Your task to perform on an android device: change alarm snooze length Image 0: 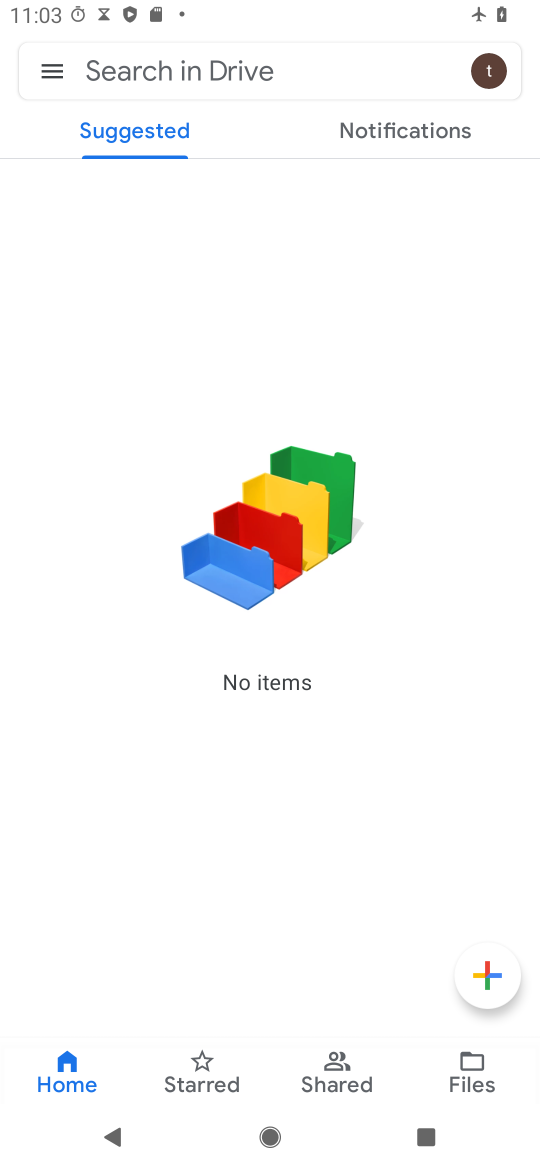
Step 0: press home button
Your task to perform on an android device: change alarm snooze length Image 1: 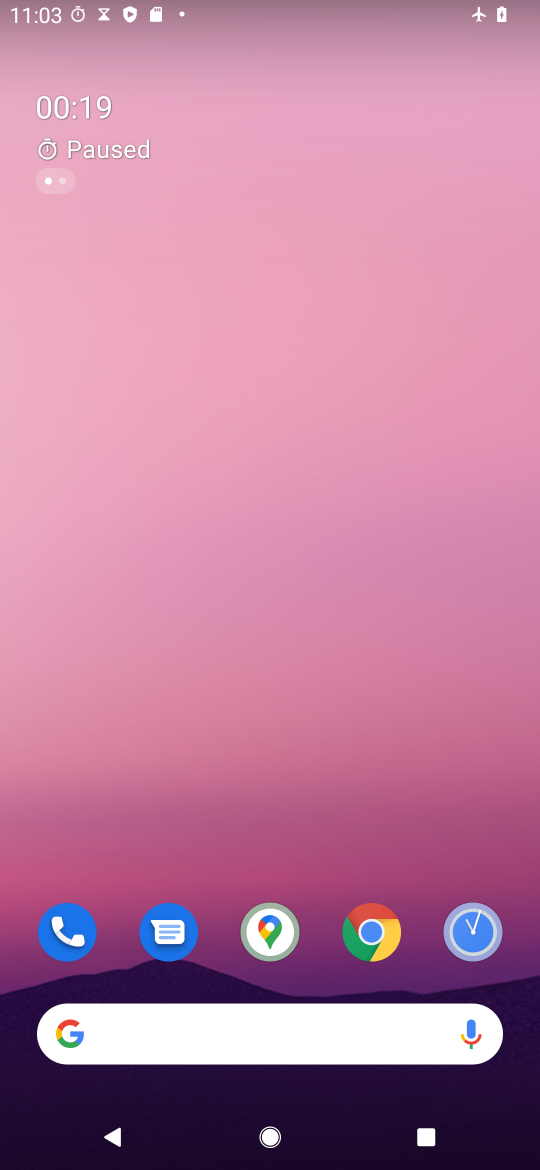
Step 1: drag from (211, 1055) to (396, 204)
Your task to perform on an android device: change alarm snooze length Image 2: 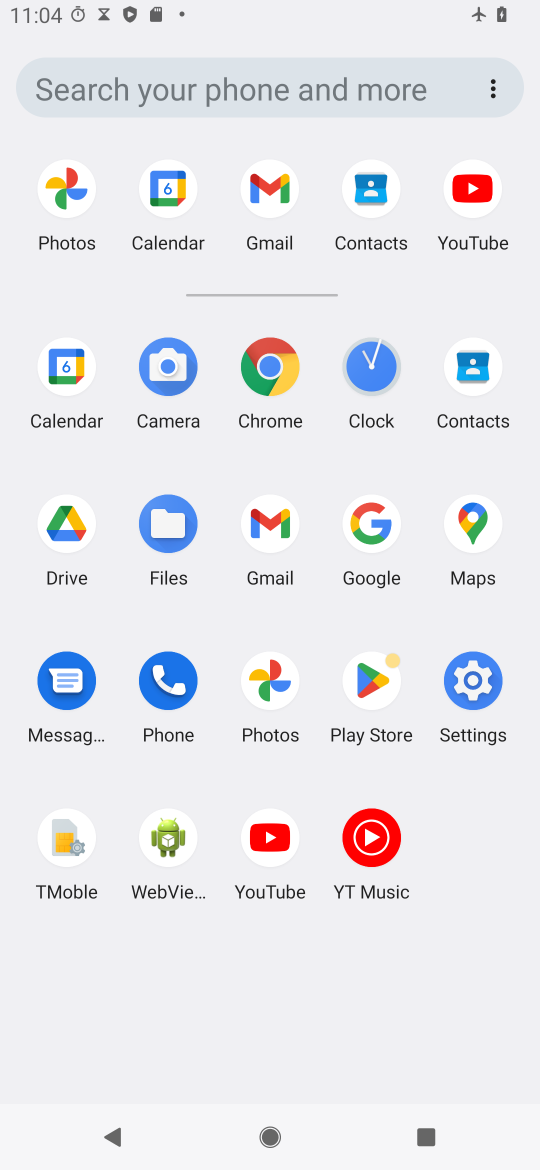
Step 2: click (369, 372)
Your task to perform on an android device: change alarm snooze length Image 3: 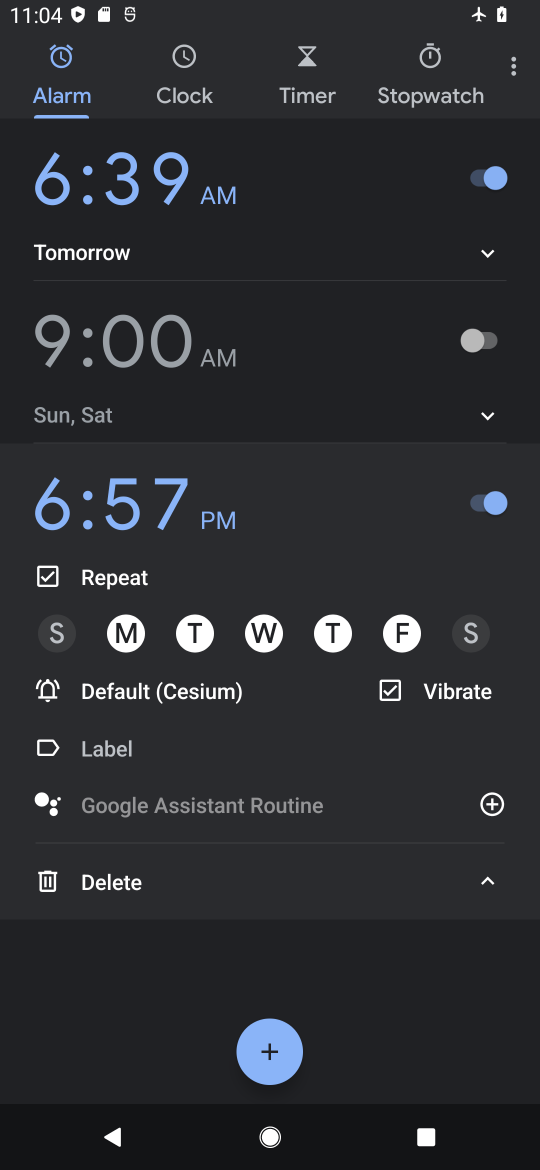
Step 3: click (513, 68)
Your task to perform on an android device: change alarm snooze length Image 4: 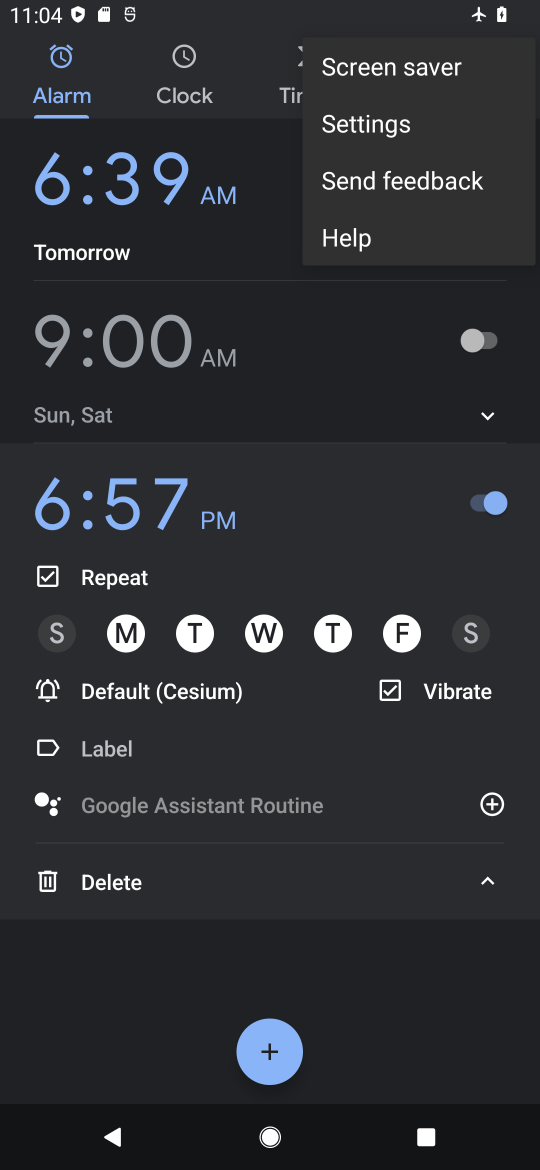
Step 4: click (410, 121)
Your task to perform on an android device: change alarm snooze length Image 5: 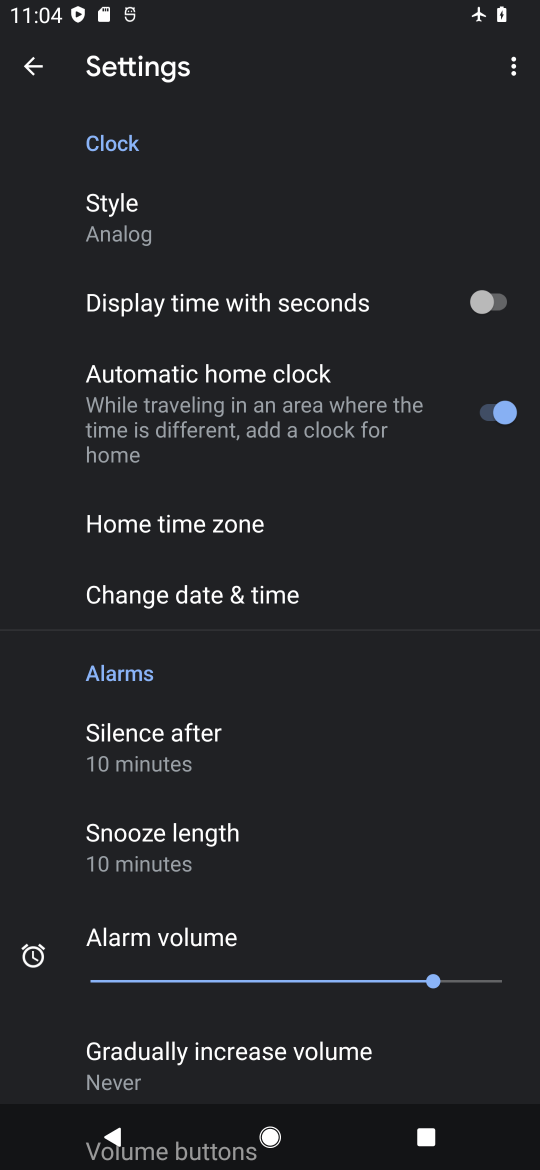
Step 5: click (179, 826)
Your task to perform on an android device: change alarm snooze length Image 6: 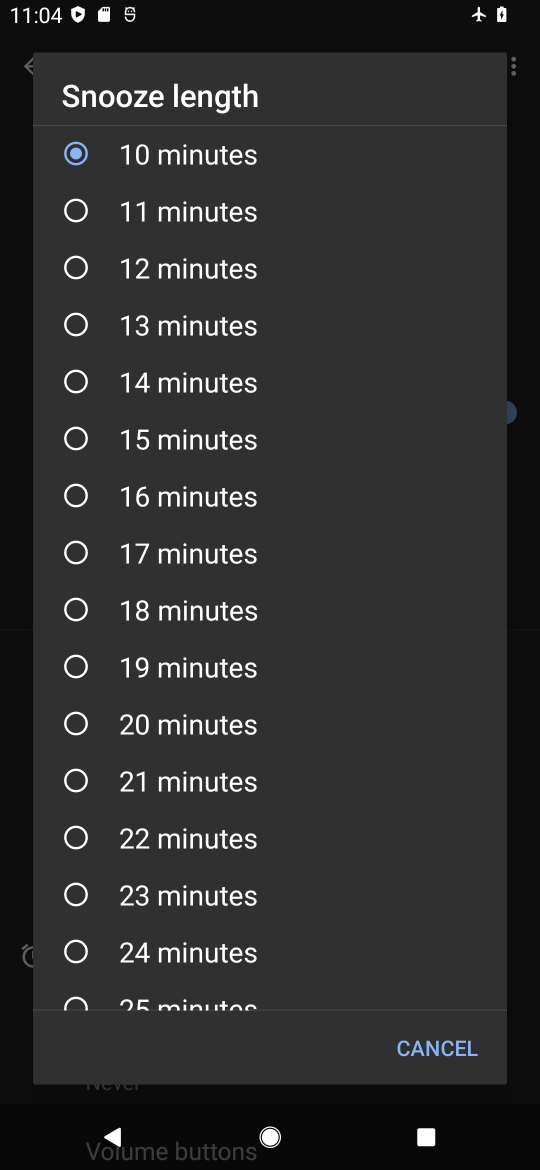
Step 6: click (79, 956)
Your task to perform on an android device: change alarm snooze length Image 7: 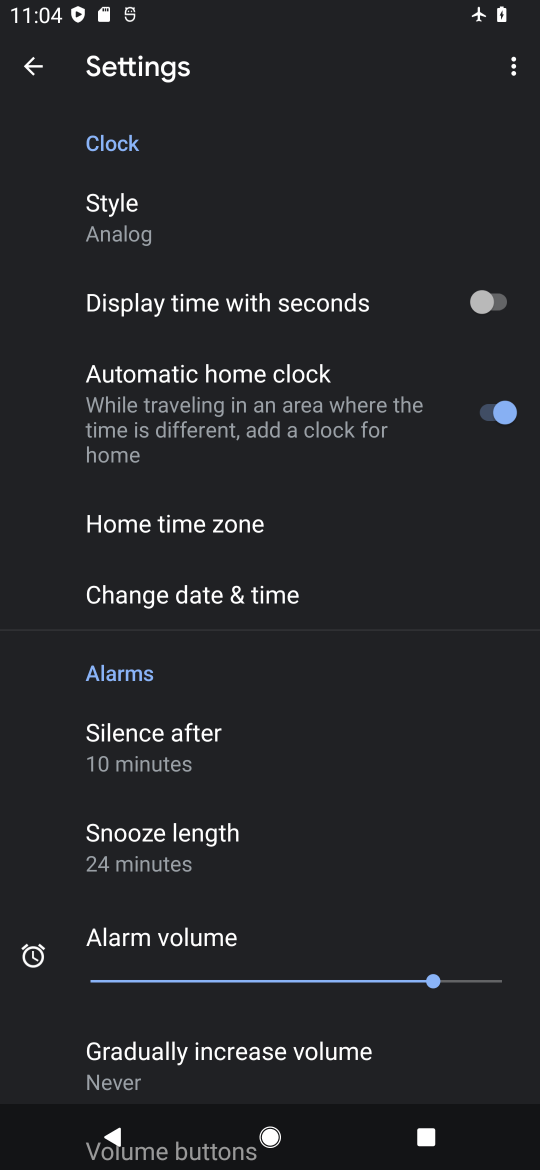
Step 7: task complete